Your task to perform on an android device: Go to internet settings Image 0: 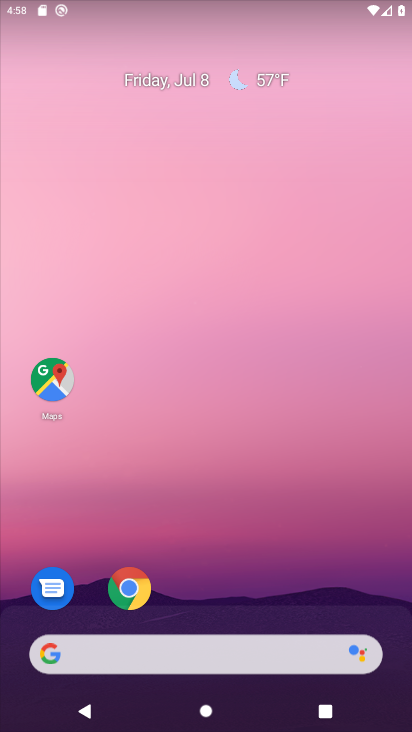
Step 0: drag from (173, 473) to (180, 373)
Your task to perform on an android device: Go to internet settings Image 1: 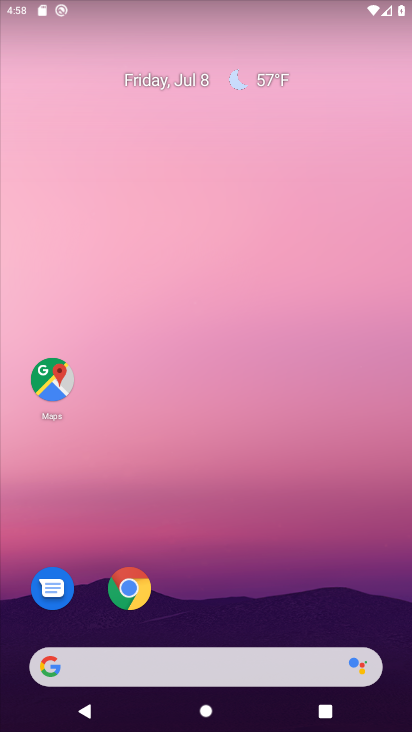
Step 1: drag from (185, 73) to (202, 158)
Your task to perform on an android device: Go to internet settings Image 2: 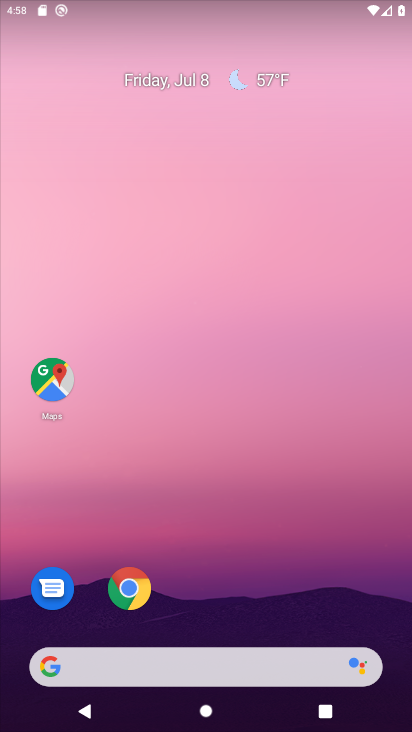
Step 2: drag from (233, 537) to (246, 27)
Your task to perform on an android device: Go to internet settings Image 3: 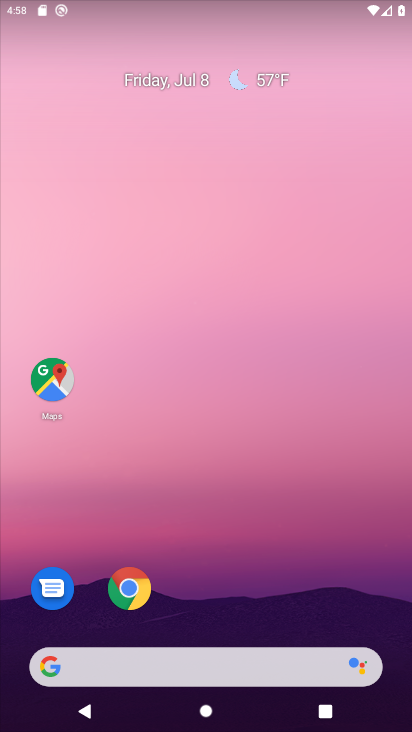
Step 3: drag from (267, 217) to (247, 71)
Your task to perform on an android device: Go to internet settings Image 4: 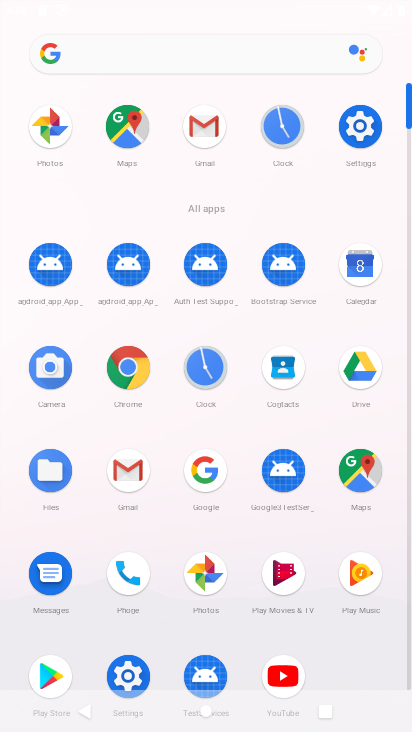
Step 4: drag from (181, 99) to (178, 11)
Your task to perform on an android device: Go to internet settings Image 5: 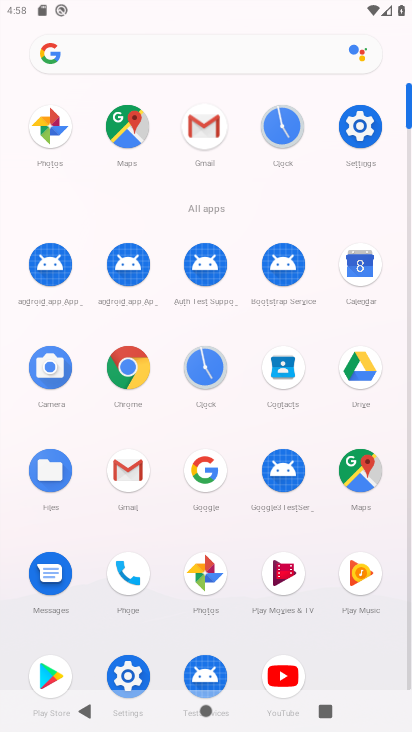
Step 5: drag from (206, 529) to (187, 19)
Your task to perform on an android device: Go to internet settings Image 6: 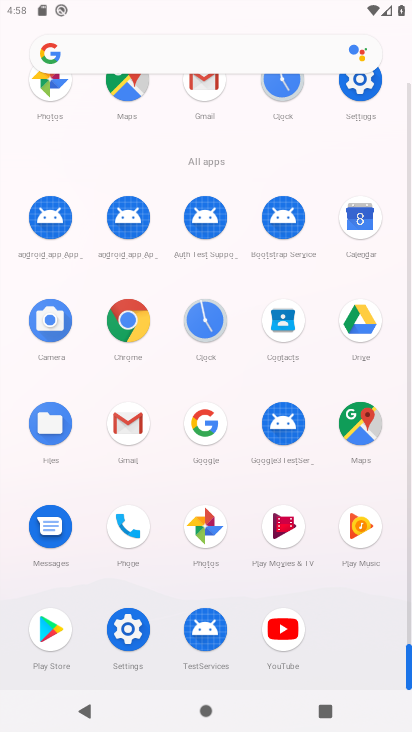
Step 6: click (121, 625)
Your task to perform on an android device: Go to internet settings Image 7: 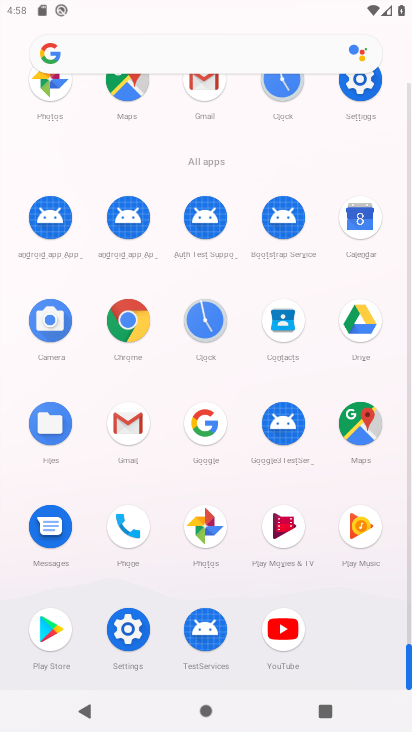
Step 7: click (121, 625)
Your task to perform on an android device: Go to internet settings Image 8: 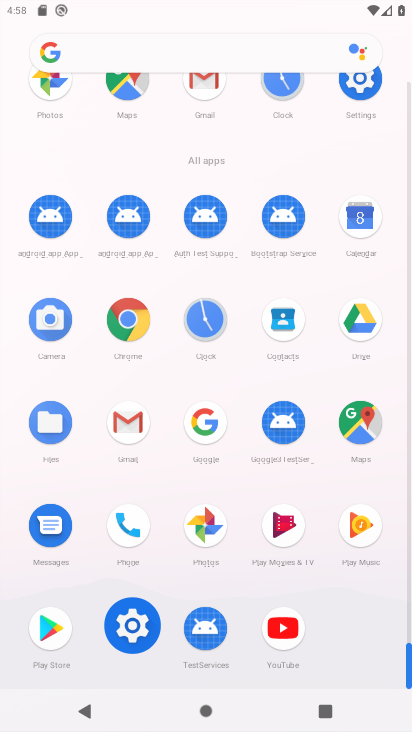
Step 8: click (112, 638)
Your task to perform on an android device: Go to internet settings Image 9: 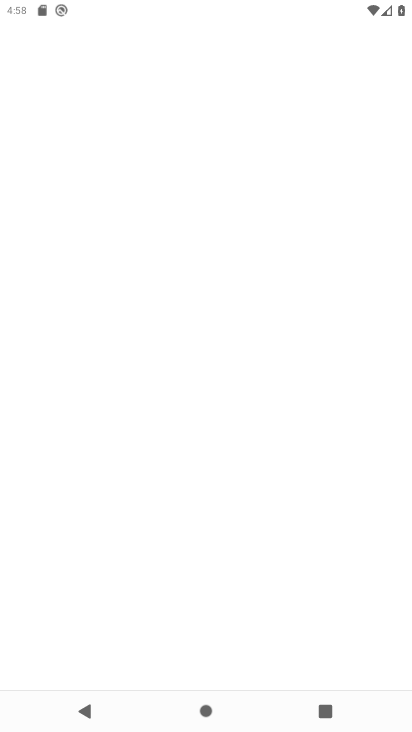
Step 9: click (112, 638)
Your task to perform on an android device: Go to internet settings Image 10: 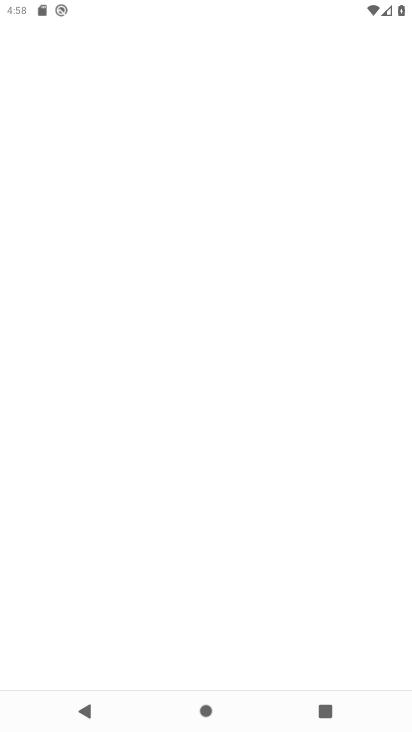
Step 10: click (123, 639)
Your task to perform on an android device: Go to internet settings Image 11: 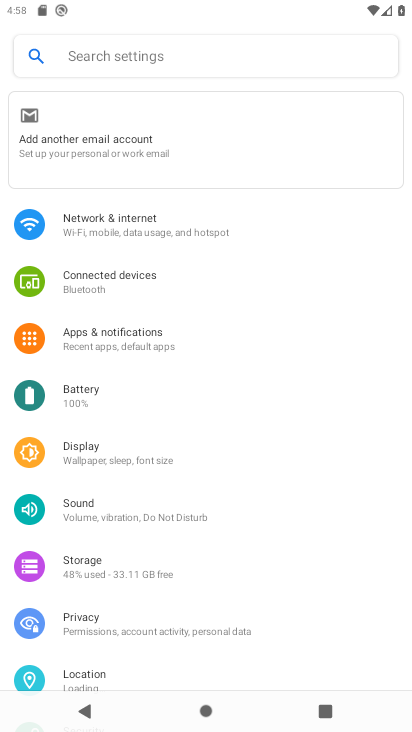
Step 11: click (115, 121)
Your task to perform on an android device: Go to internet settings Image 12: 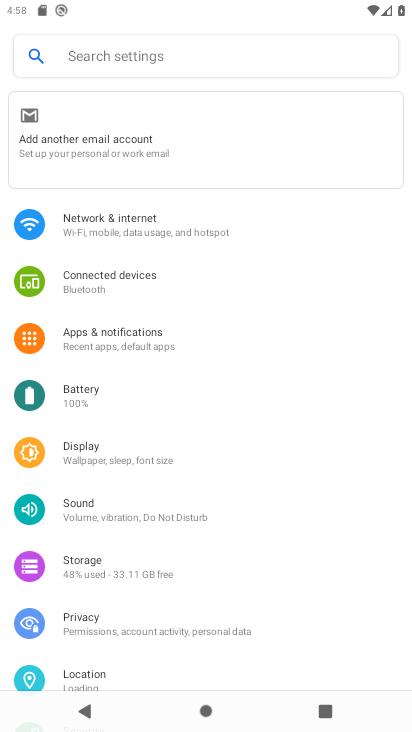
Step 12: click (115, 121)
Your task to perform on an android device: Go to internet settings Image 13: 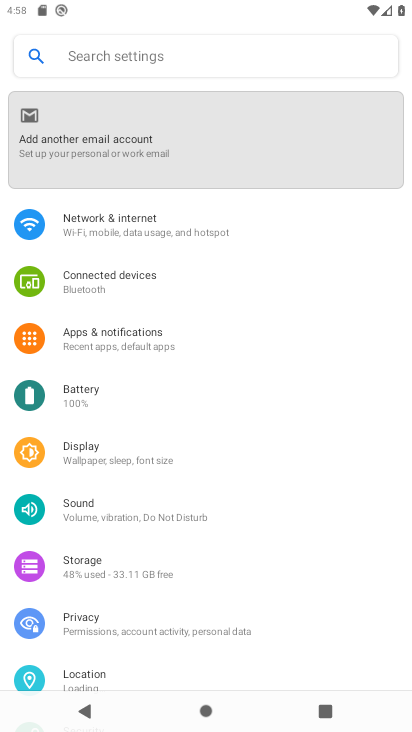
Step 13: click (116, 120)
Your task to perform on an android device: Go to internet settings Image 14: 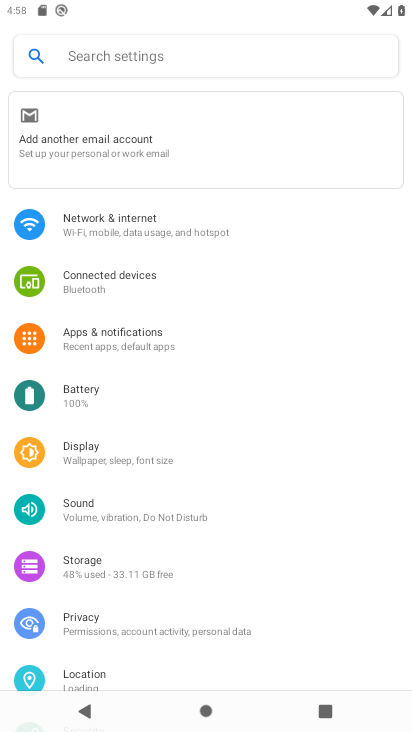
Step 14: click (116, 120)
Your task to perform on an android device: Go to internet settings Image 15: 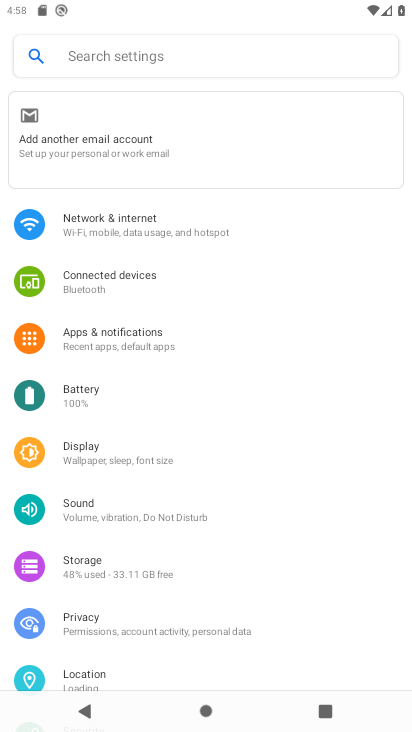
Step 15: click (116, 120)
Your task to perform on an android device: Go to internet settings Image 16: 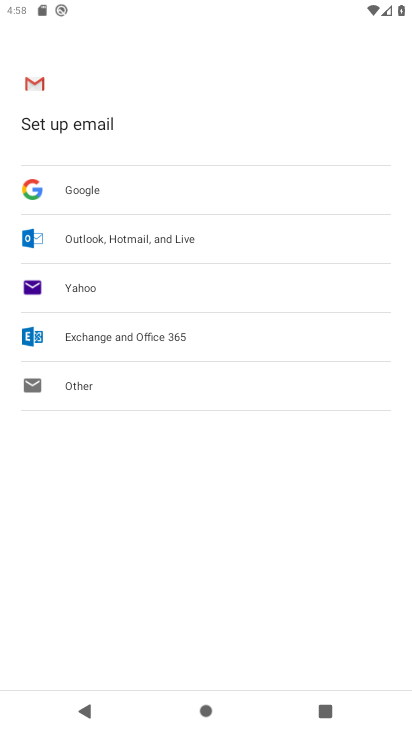
Step 16: click (101, 238)
Your task to perform on an android device: Go to internet settings Image 17: 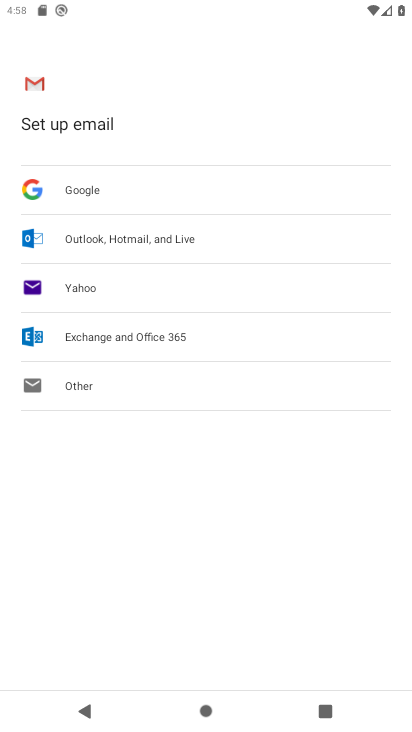
Step 17: click (102, 227)
Your task to perform on an android device: Go to internet settings Image 18: 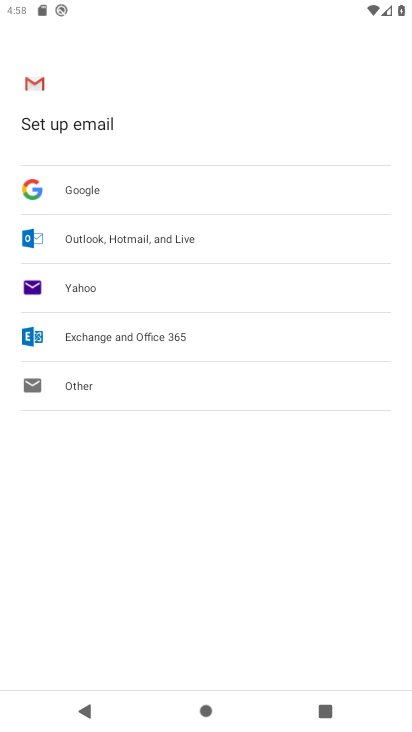
Step 18: click (108, 227)
Your task to perform on an android device: Go to internet settings Image 19: 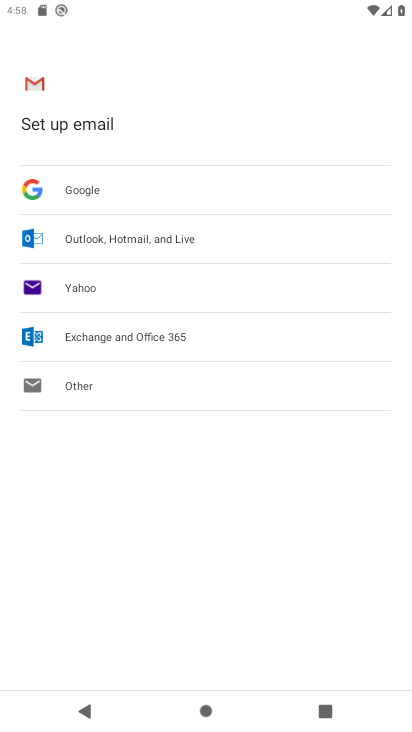
Step 19: click (108, 228)
Your task to perform on an android device: Go to internet settings Image 20: 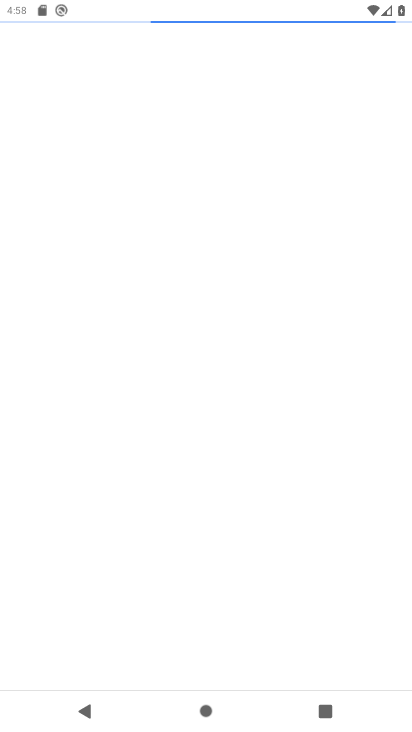
Step 20: click (117, 225)
Your task to perform on an android device: Go to internet settings Image 21: 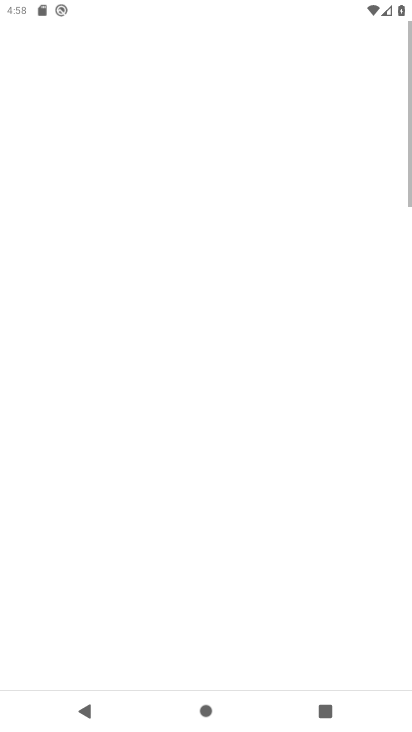
Step 21: task complete